Your task to perform on an android device: open a bookmark in the chrome app Image 0: 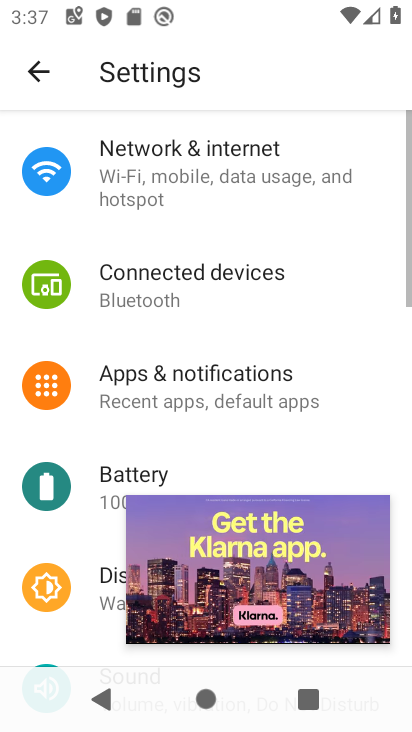
Step 0: click (382, 510)
Your task to perform on an android device: open a bookmark in the chrome app Image 1: 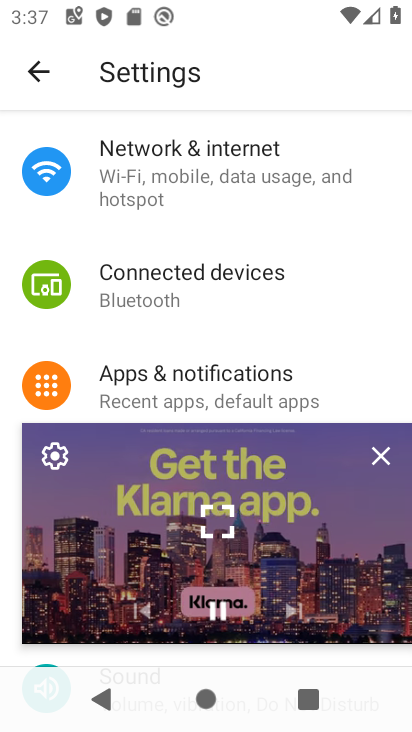
Step 1: click (390, 468)
Your task to perform on an android device: open a bookmark in the chrome app Image 2: 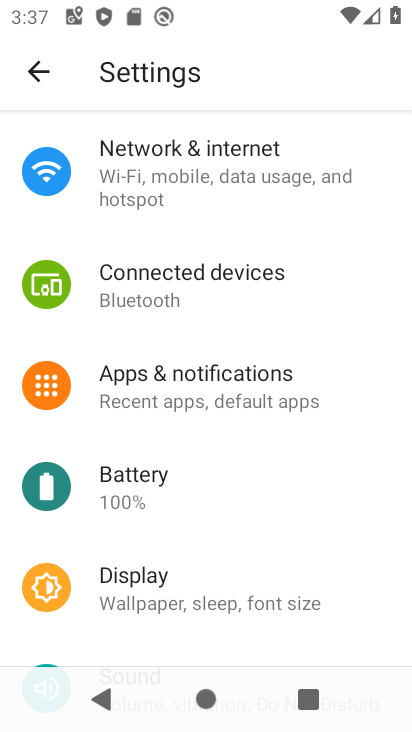
Step 2: press home button
Your task to perform on an android device: open a bookmark in the chrome app Image 3: 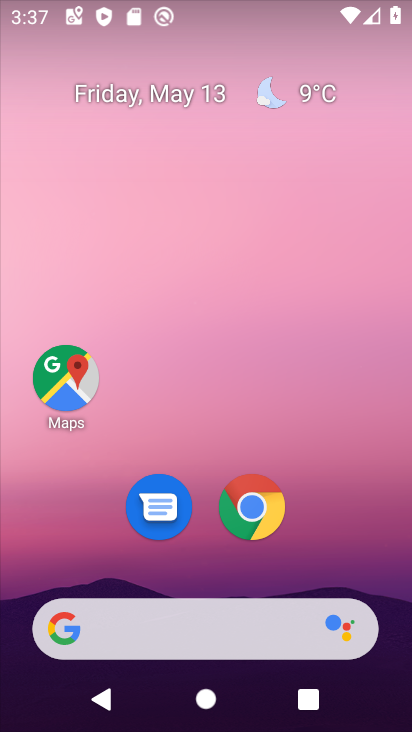
Step 3: drag from (383, 564) to (301, 108)
Your task to perform on an android device: open a bookmark in the chrome app Image 4: 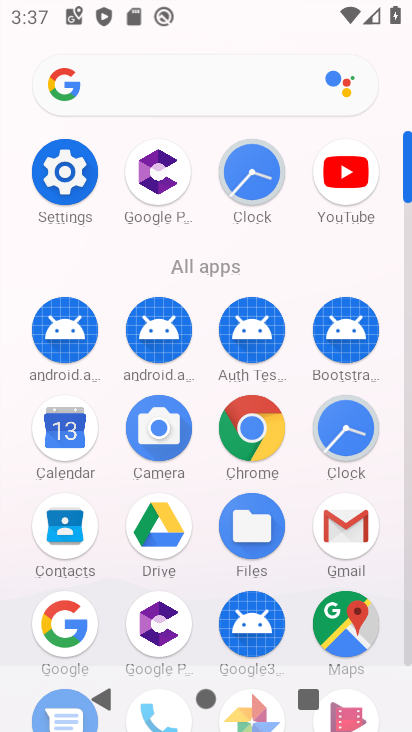
Step 4: click (238, 436)
Your task to perform on an android device: open a bookmark in the chrome app Image 5: 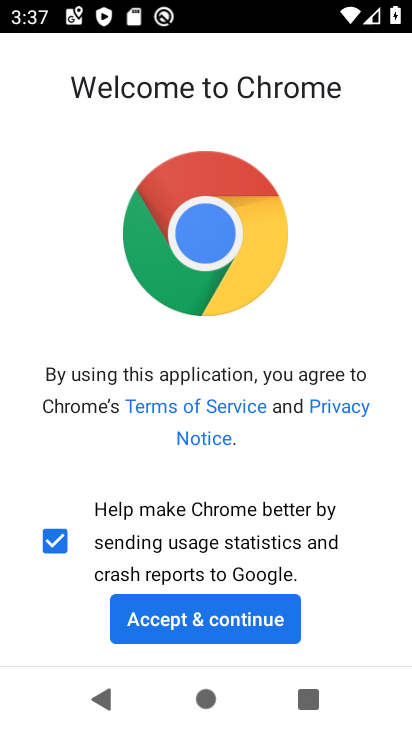
Step 5: click (203, 621)
Your task to perform on an android device: open a bookmark in the chrome app Image 6: 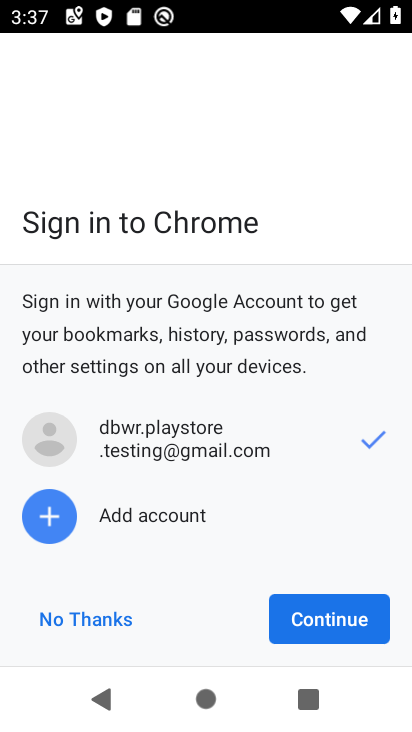
Step 6: click (98, 612)
Your task to perform on an android device: open a bookmark in the chrome app Image 7: 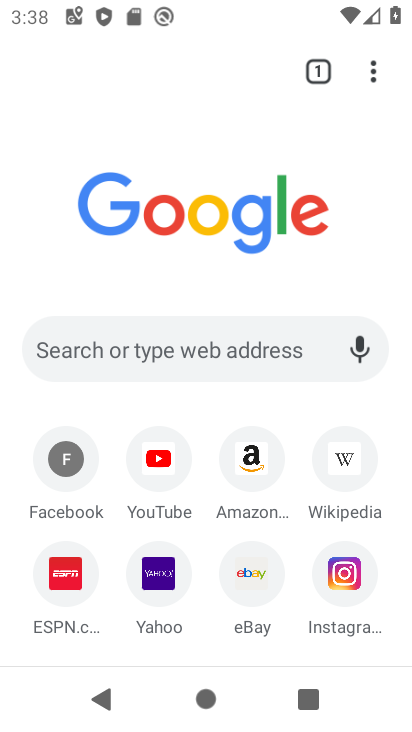
Step 7: drag from (373, 82) to (162, 286)
Your task to perform on an android device: open a bookmark in the chrome app Image 8: 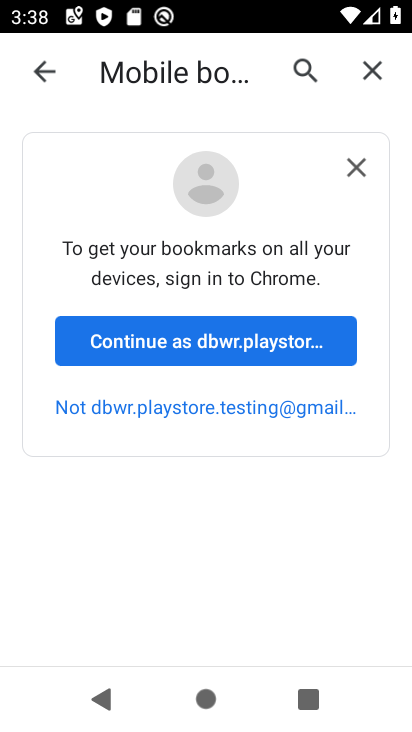
Step 8: click (179, 347)
Your task to perform on an android device: open a bookmark in the chrome app Image 9: 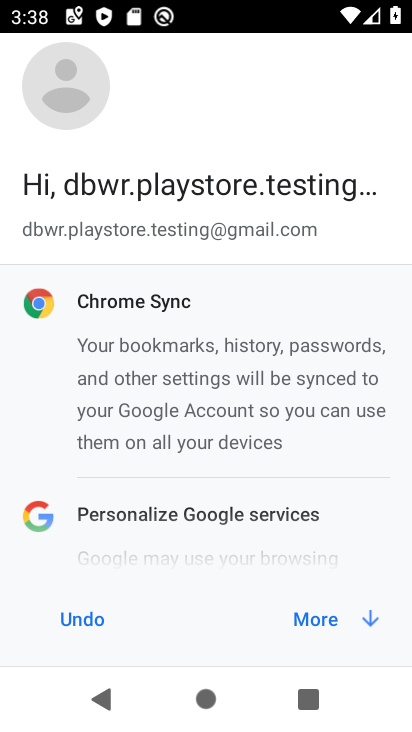
Step 9: click (328, 625)
Your task to perform on an android device: open a bookmark in the chrome app Image 10: 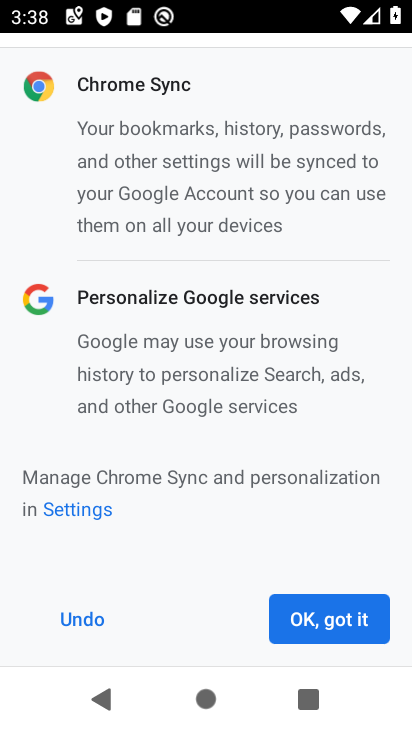
Step 10: click (328, 625)
Your task to perform on an android device: open a bookmark in the chrome app Image 11: 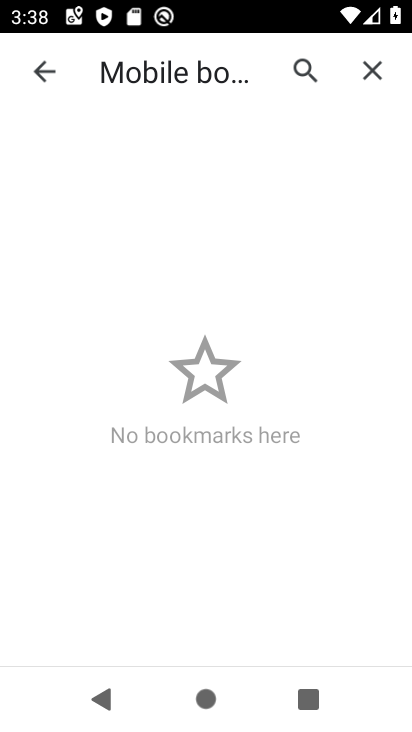
Step 11: task complete